Your task to perform on an android device: turn off sleep mode Image 0: 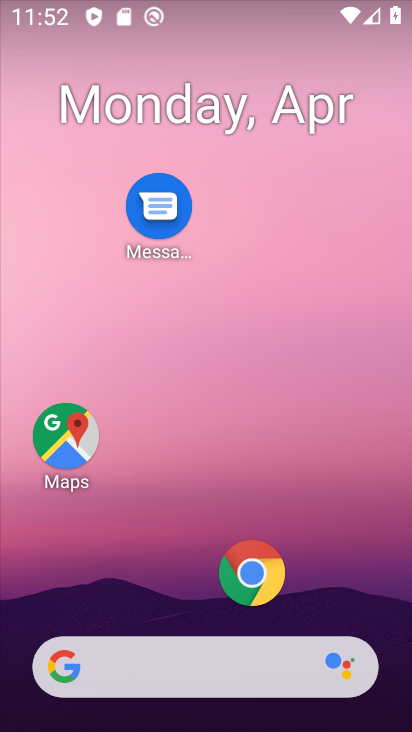
Step 0: drag from (208, 627) to (166, 77)
Your task to perform on an android device: turn off sleep mode Image 1: 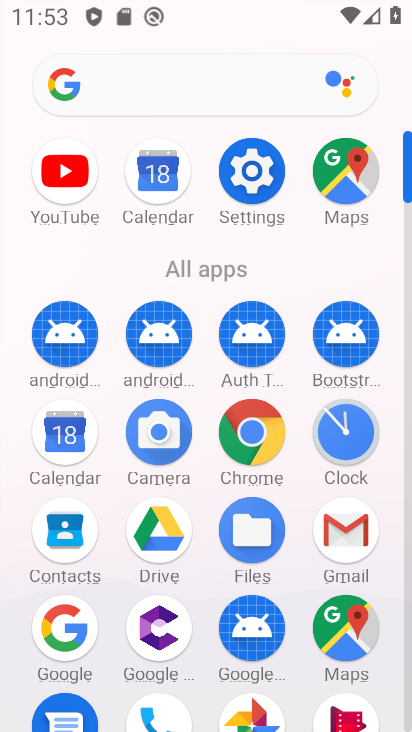
Step 1: click (233, 167)
Your task to perform on an android device: turn off sleep mode Image 2: 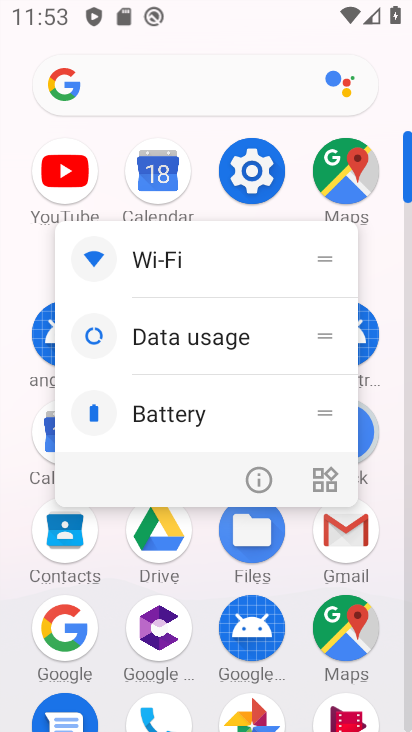
Step 2: click (250, 157)
Your task to perform on an android device: turn off sleep mode Image 3: 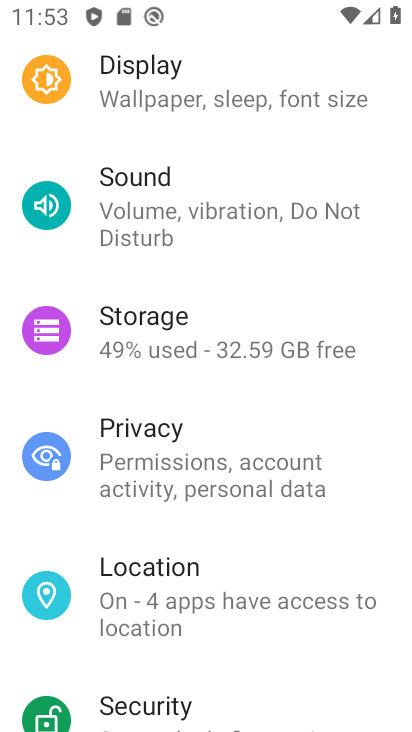
Step 3: click (192, 95)
Your task to perform on an android device: turn off sleep mode Image 4: 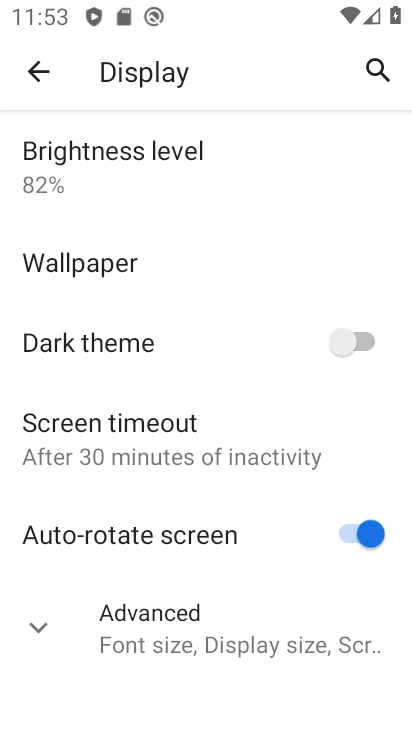
Step 4: task complete